Your task to perform on an android device: What's the weather today? Image 0: 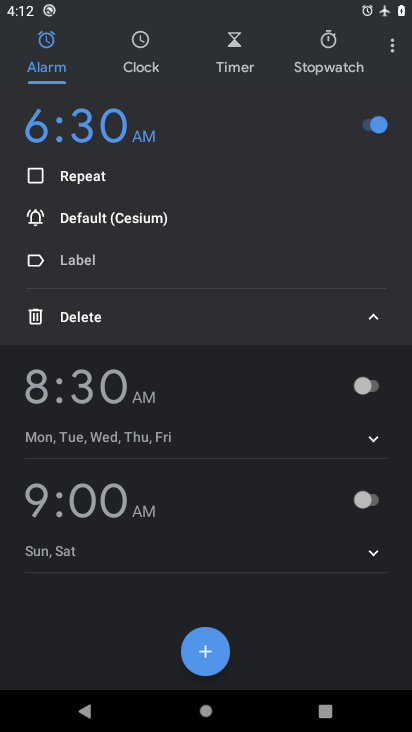
Step 0: press home button
Your task to perform on an android device: What's the weather today? Image 1: 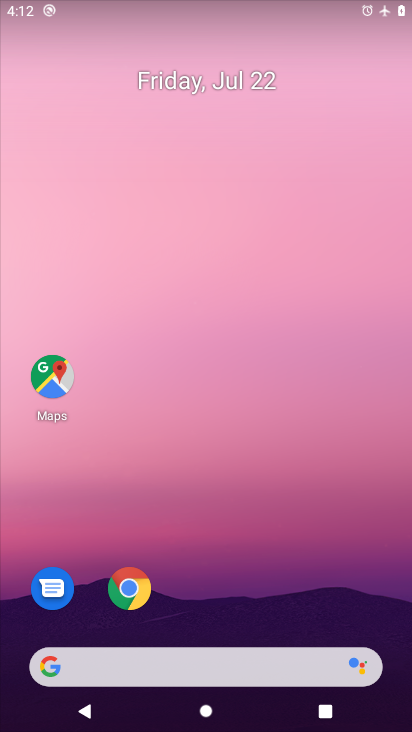
Step 1: drag from (260, 585) to (273, 218)
Your task to perform on an android device: What's the weather today? Image 2: 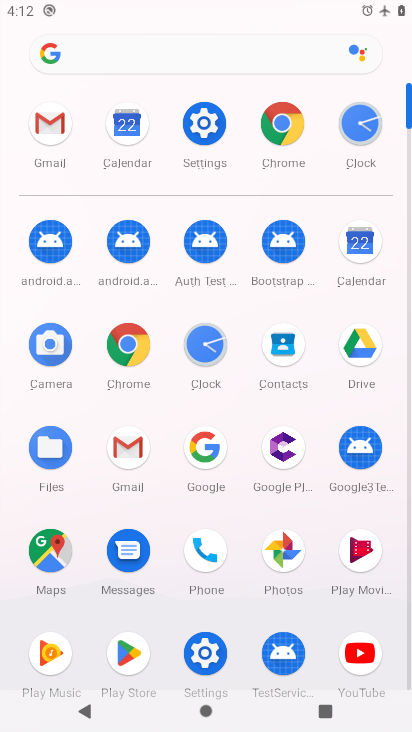
Step 2: click (135, 335)
Your task to perform on an android device: What's the weather today? Image 3: 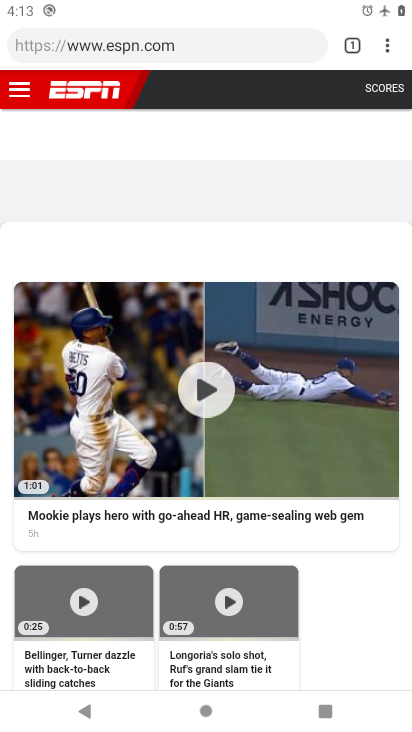
Step 3: click (121, 42)
Your task to perform on an android device: What's the weather today? Image 4: 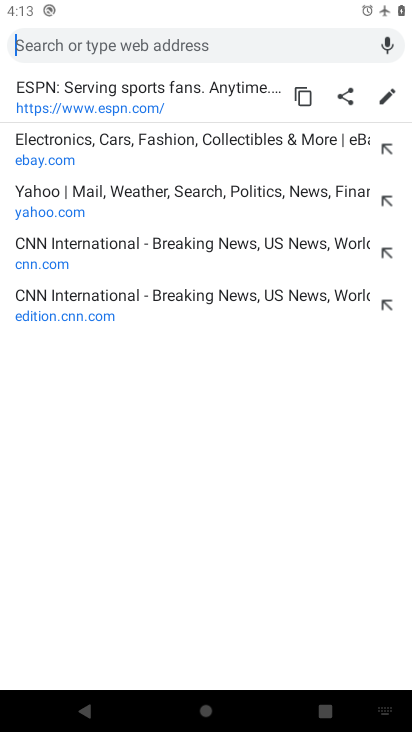
Step 4: type "What's the weather today?"
Your task to perform on an android device: What's the weather today? Image 5: 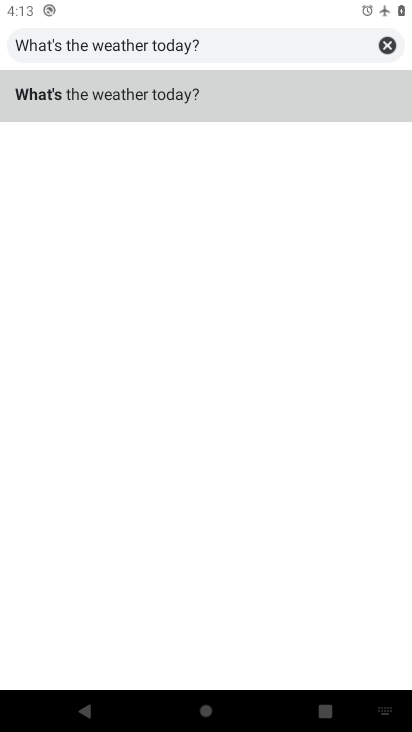
Step 5: click (96, 95)
Your task to perform on an android device: What's the weather today? Image 6: 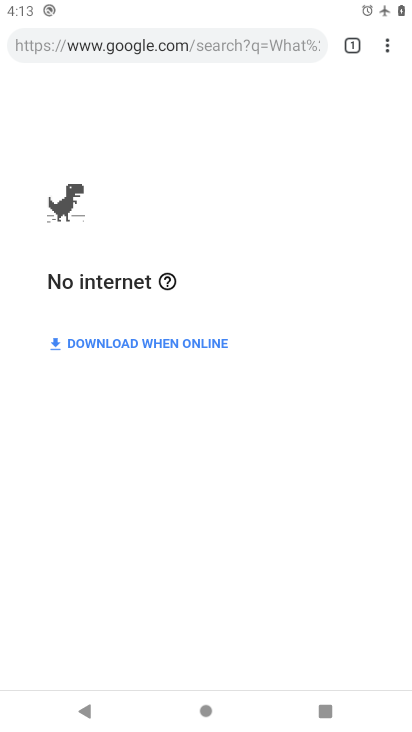
Step 6: drag from (340, 0) to (395, 363)
Your task to perform on an android device: What's the weather today? Image 7: 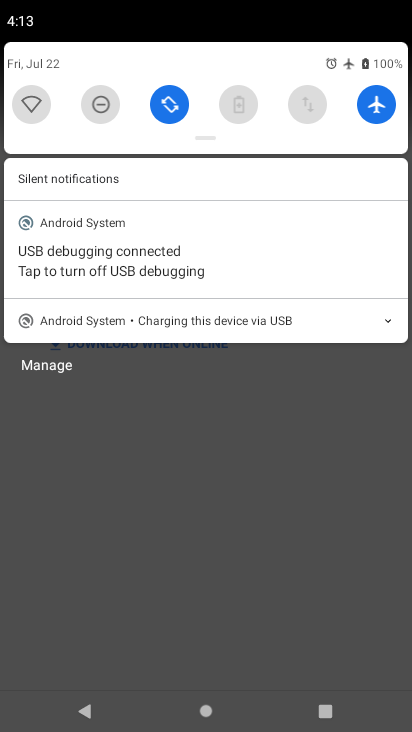
Step 7: click (375, 88)
Your task to perform on an android device: What's the weather today? Image 8: 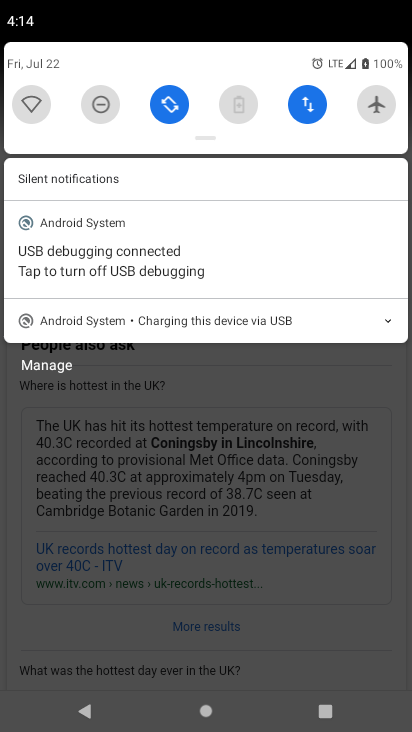
Step 8: click (366, 386)
Your task to perform on an android device: What's the weather today? Image 9: 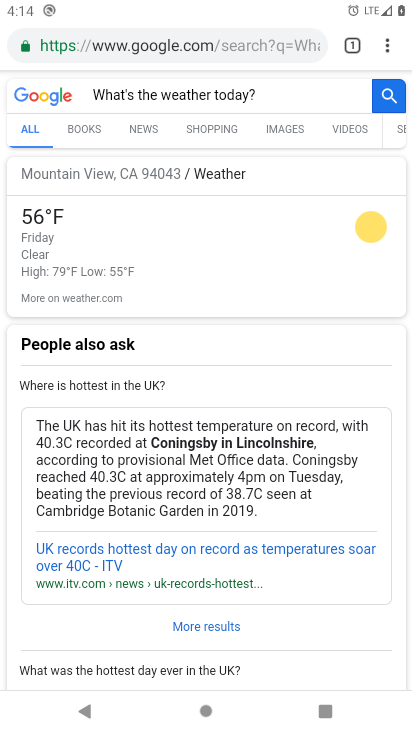
Step 9: task complete